Your task to perform on an android device: Search for energizer triple a on newegg, select the first entry, and add it to the cart. Image 0: 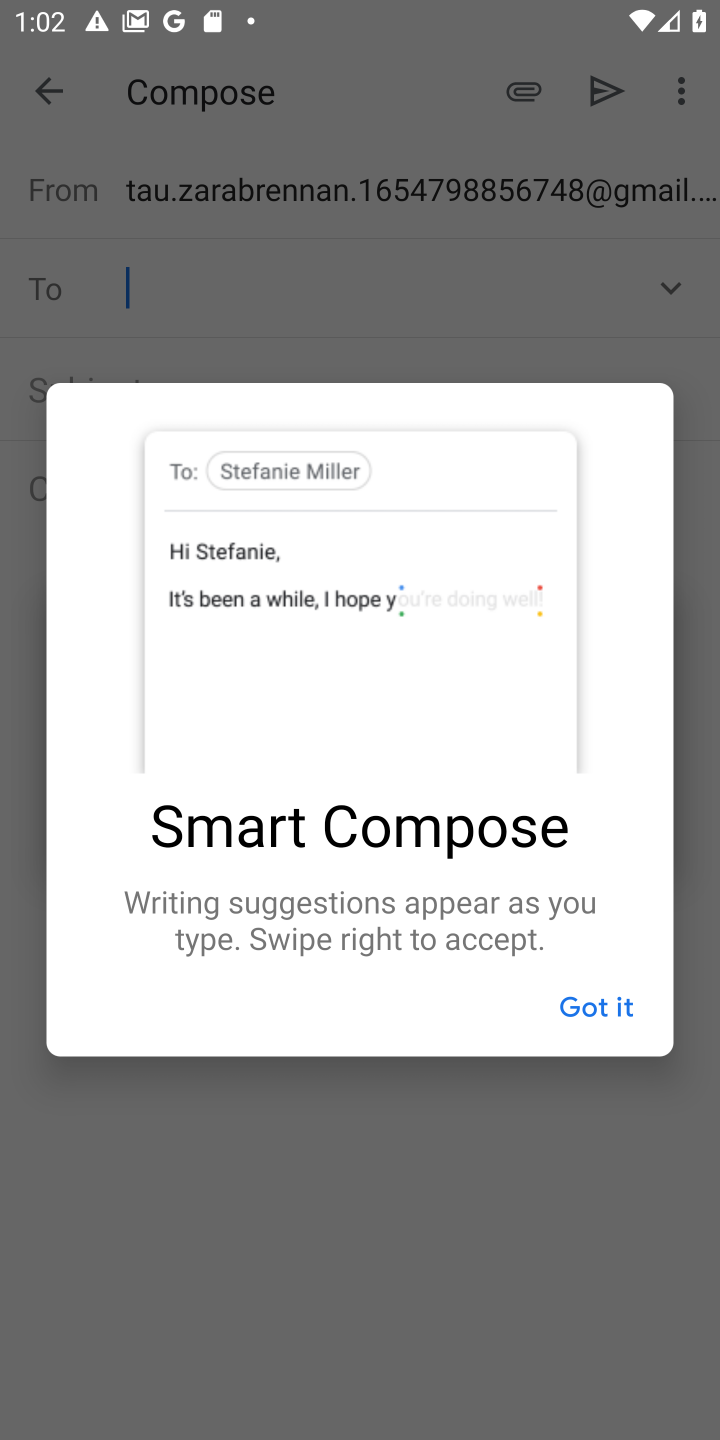
Step 0: press home button
Your task to perform on an android device: Search for energizer triple a on newegg, select the first entry, and add it to the cart. Image 1: 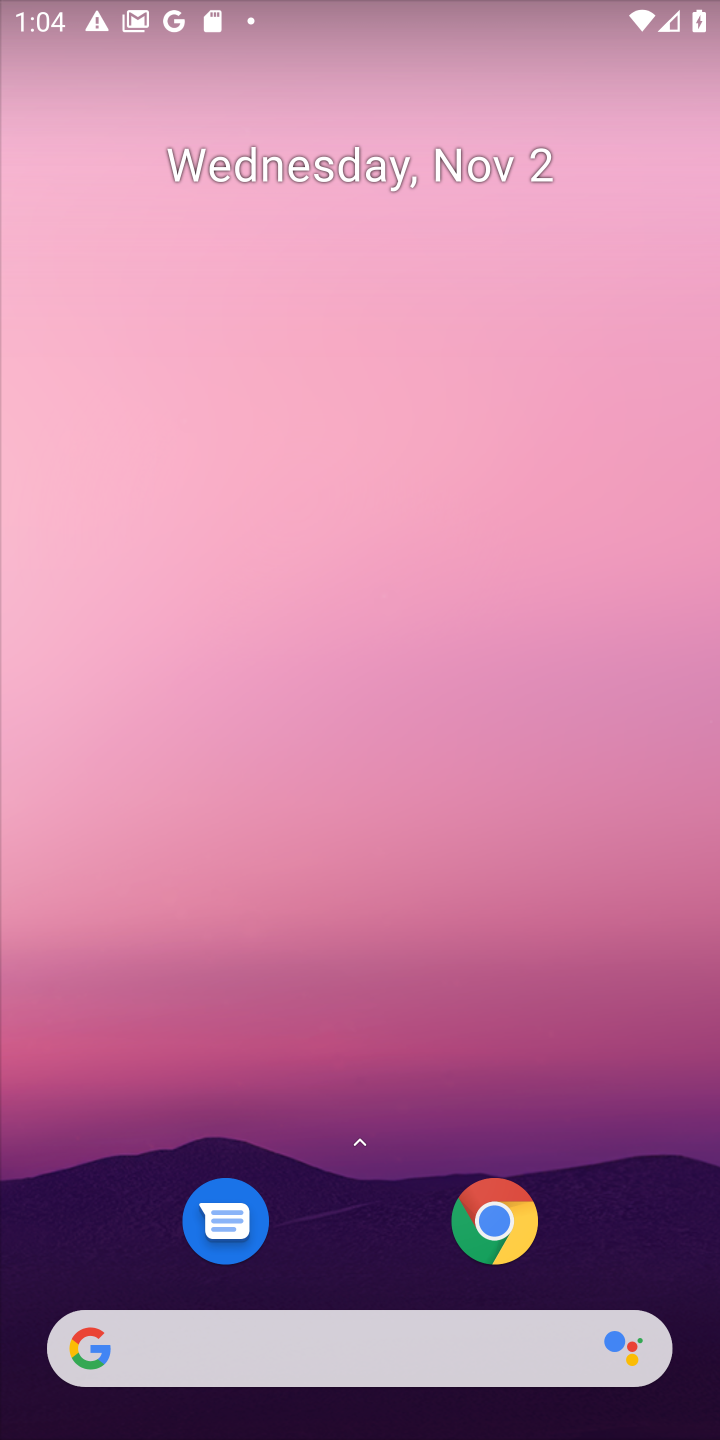
Step 1: task complete